Your task to perform on an android device: Go to eBay Image 0: 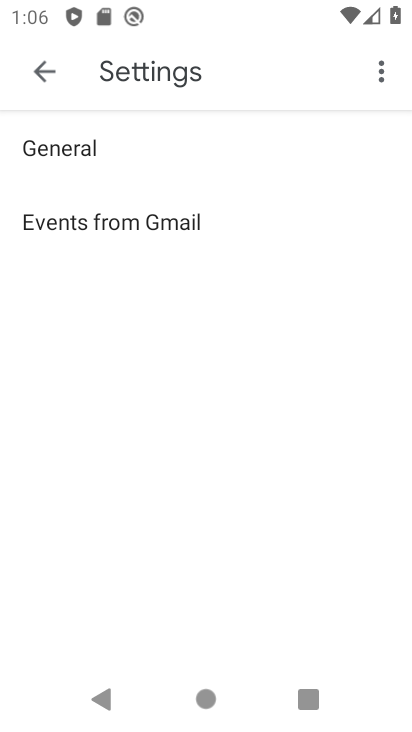
Step 0: click (240, 622)
Your task to perform on an android device: Go to eBay Image 1: 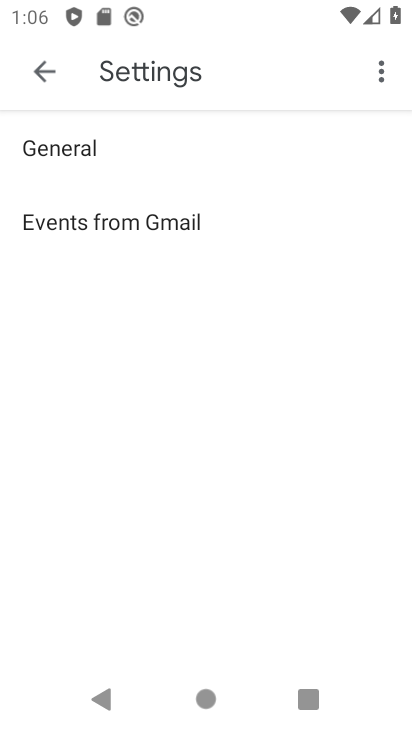
Step 1: press home button
Your task to perform on an android device: Go to eBay Image 2: 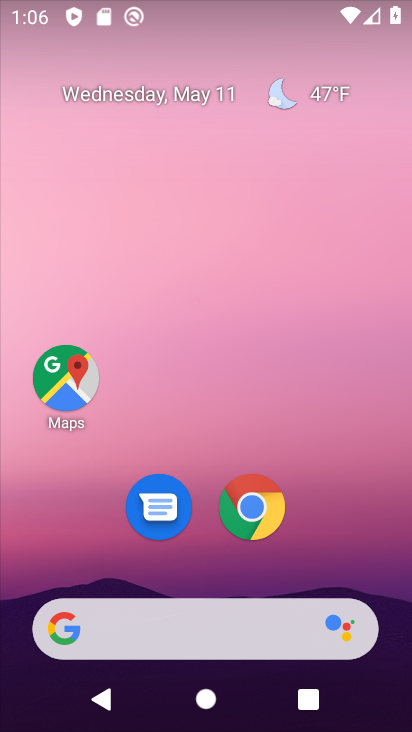
Step 2: click (185, 640)
Your task to perform on an android device: Go to eBay Image 3: 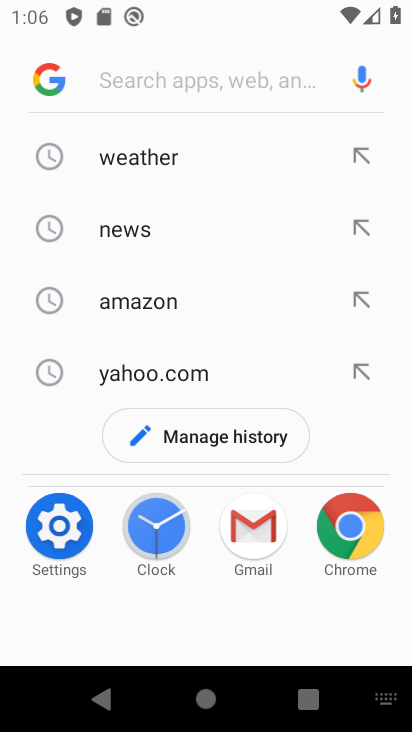
Step 3: click (146, 79)
Your task to perform on an android device: Go to eBay Image 4: 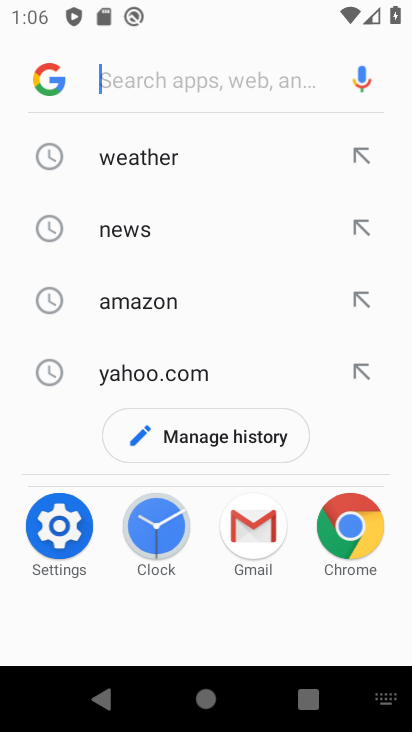
Step 4: type "ebay"
Your task to perform on an android device: Go to eBay Image 5: 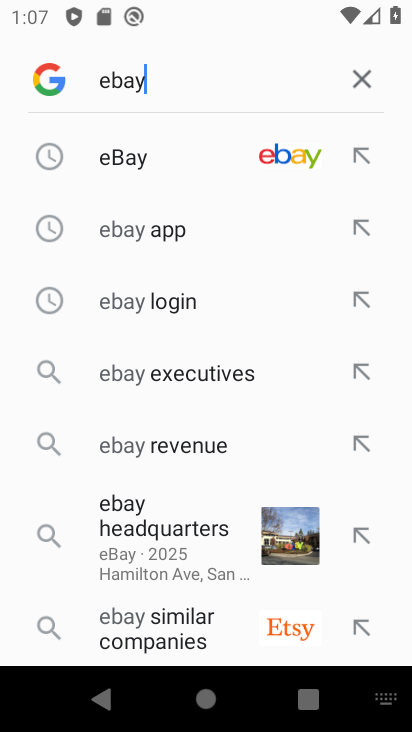
Step 5: click (142, 157)
Your task to perform on an android device: Go to eBay Image 6: 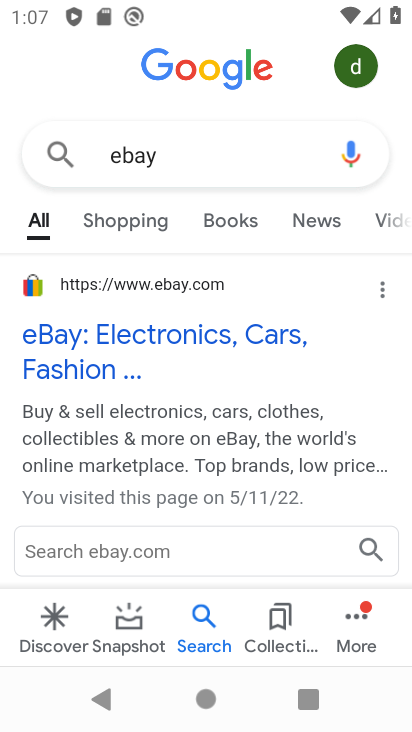
Step 6: task complete